Your task to perform on an android device: Turn on the flashlight Image 0: 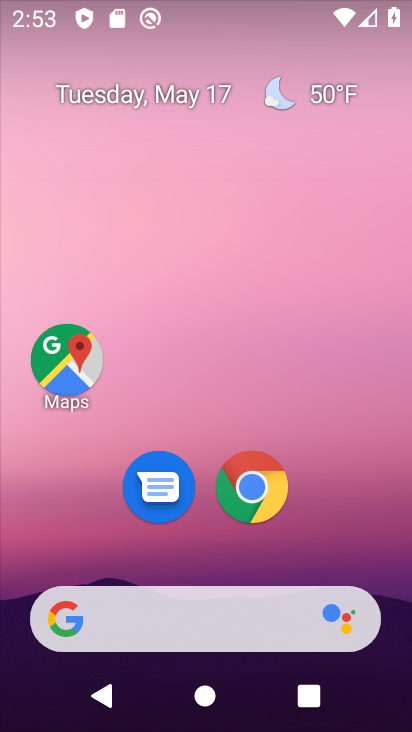
Step 0: drag from (397, 598) to (383, 63)
Your task to perform on an android device: Turn on the flashlight Image 1: 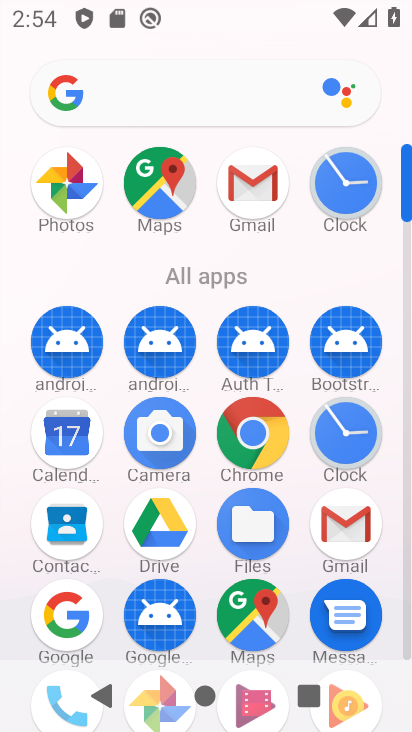
Step 1: press home button
Your task to perform on an android device: Turn on the flashlight Image 2: 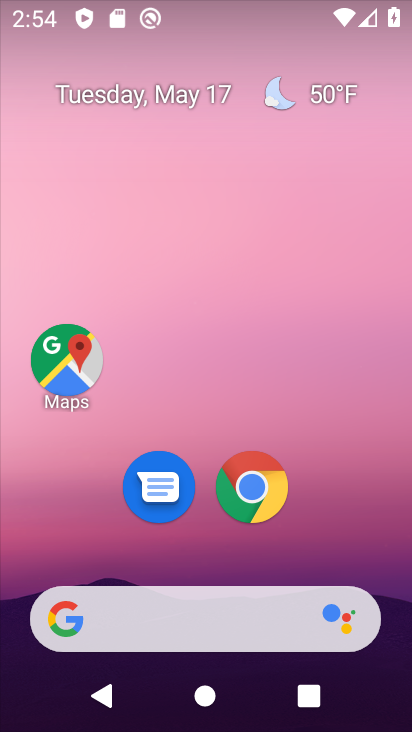
Step 2: drag from (238, 21) to (283, 441)
Your task to perform on an android device: Turn on the flashlight Image 3: 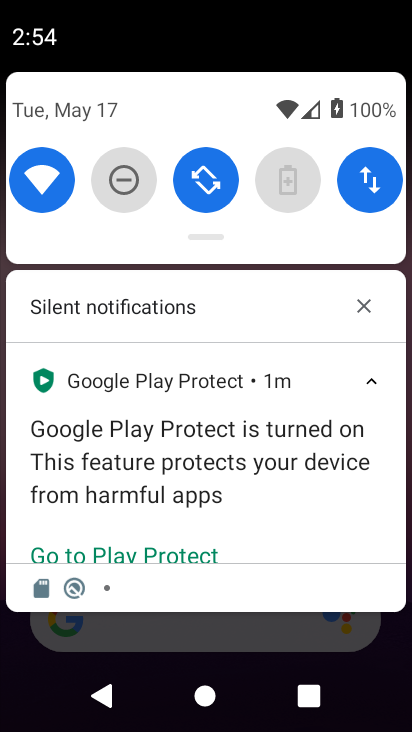
Step 3: drag from (208, 227) to (200, 538)
Your task to perform on an android device: Turn on the flashlight Image 4: 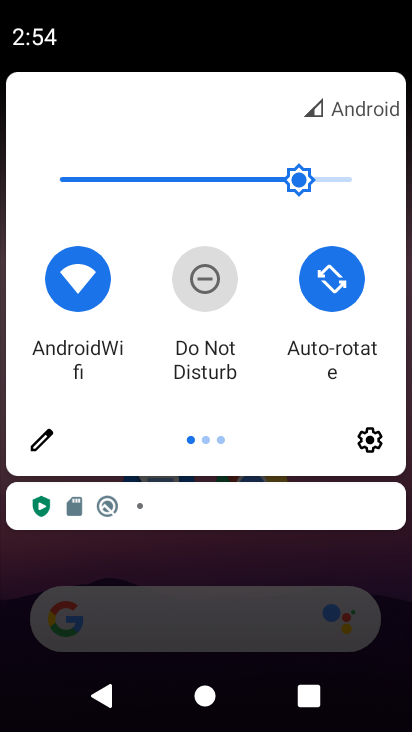
Step 4: click (28, 439)
Your task to perform on an android device: Turn on the flashlight Image 5: 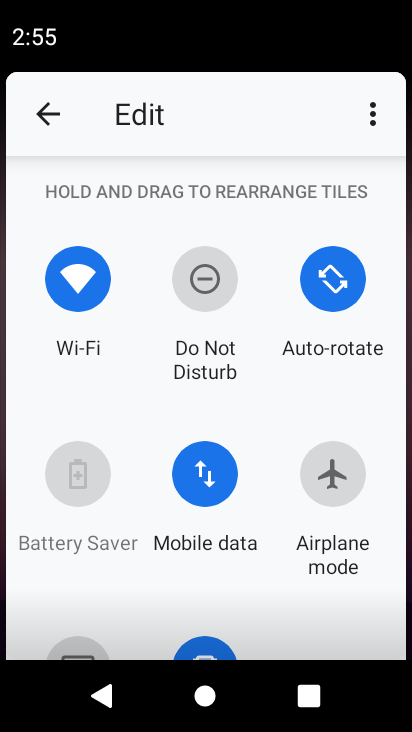
Step 5: task complete